Your task to perform on an android device: turn on javascript in the chrome app Image 0: 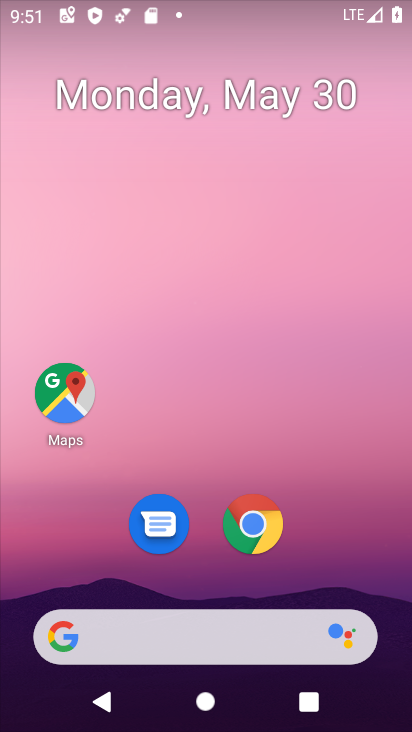
Step 0: click (246, 509)
Your task to perform on an android device: turn on javascript in the chrome app Image 1: 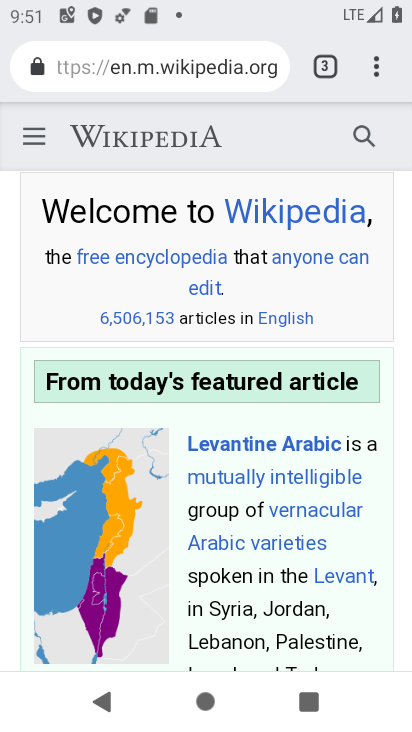
Step 1: click (369, 69)
Your task to perform on an android device: turn on javascript in the chrome app Image 2: 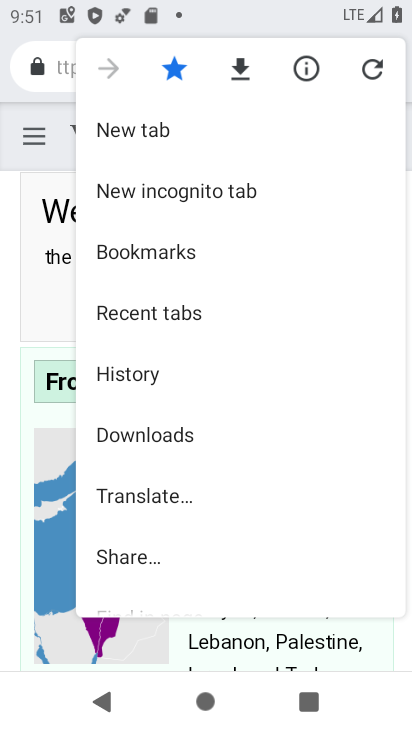
Step 2: drag from (252, 484) to (245, 161)
Your task to perform on an android device: turn on javascript in the chrome app Image 3: 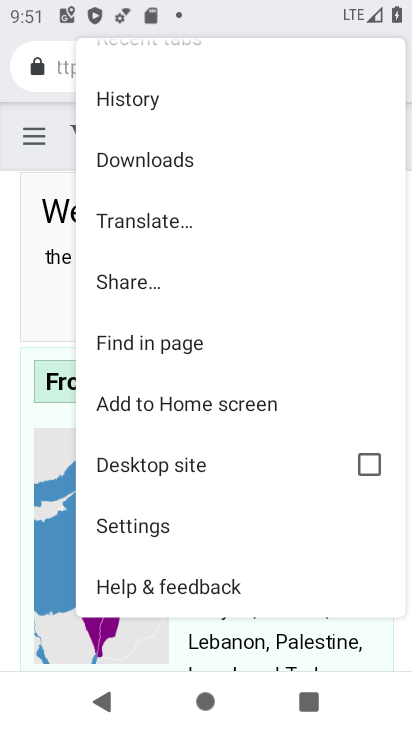
Step 3: click (183, 518)
Your task to perform on an android device: turn on javascript in the chrome app Image 4: 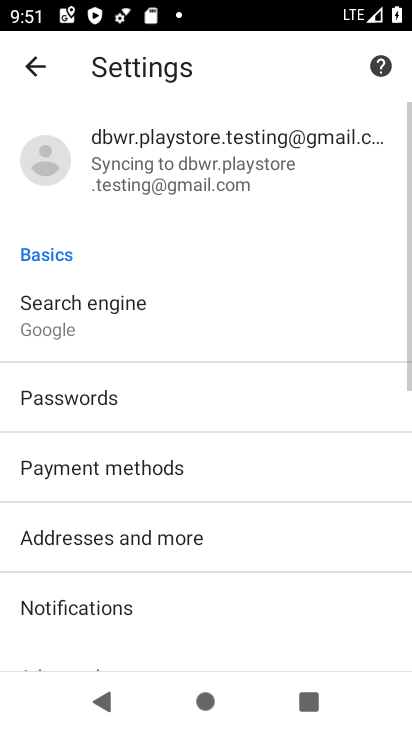
Step 4: drag from (243, 523) to (241, 104)
Your task to perform on an android device: turn on javascript in the chrome app Image 5: 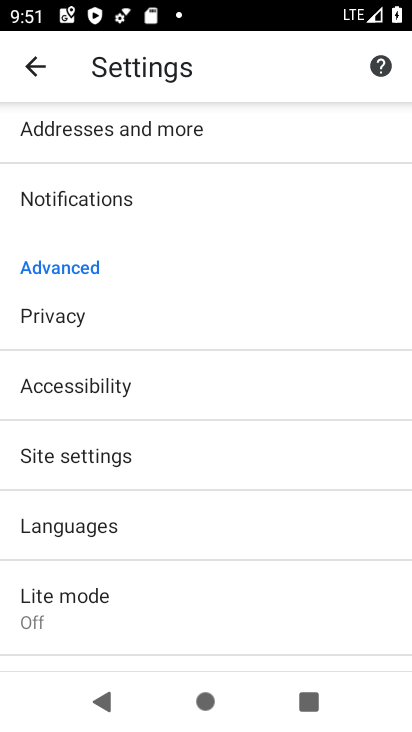
Step 5: click (183, 615)
Your task to perform on an android device: turn on javascript in the chrome app Image 6: 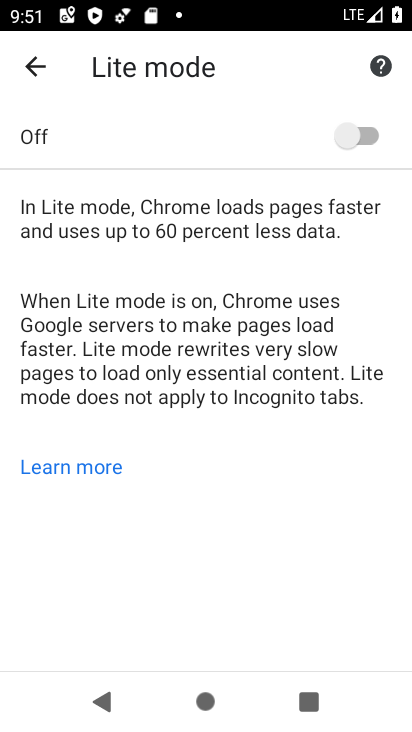
Step 6: click (39, 60)
Your task to perform on an android device: turn on javascript in the chrome app Image 7: 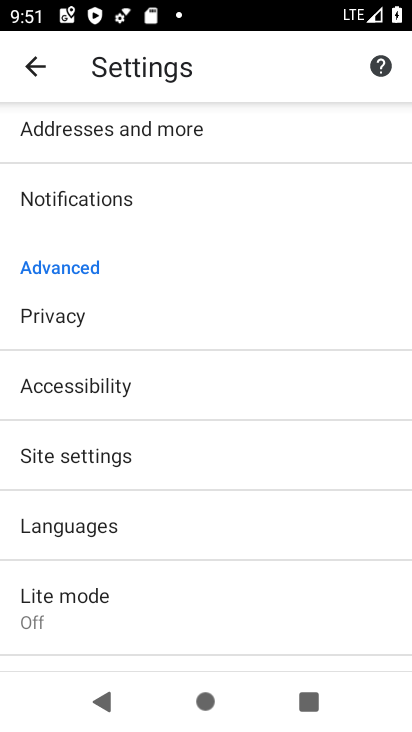
Step 7: click (178, 456)
Your task to perform on an android device: turn on javascript in the chrome app Image 8: 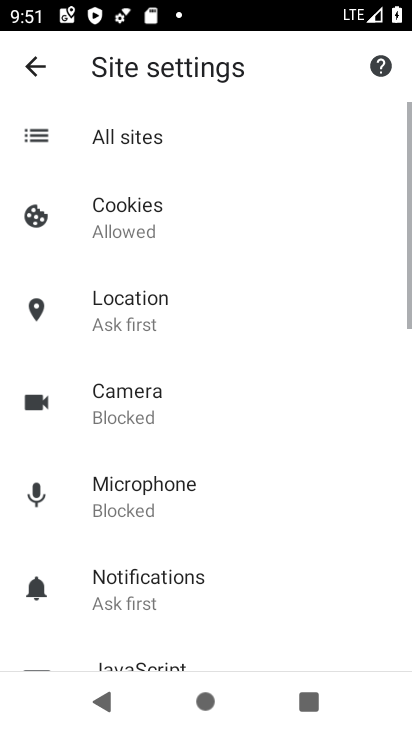
Step 8: drag from (237, 539) to (235, 226)
Your task to perform on an android device: turn on javascript in the chrome app Image 9: 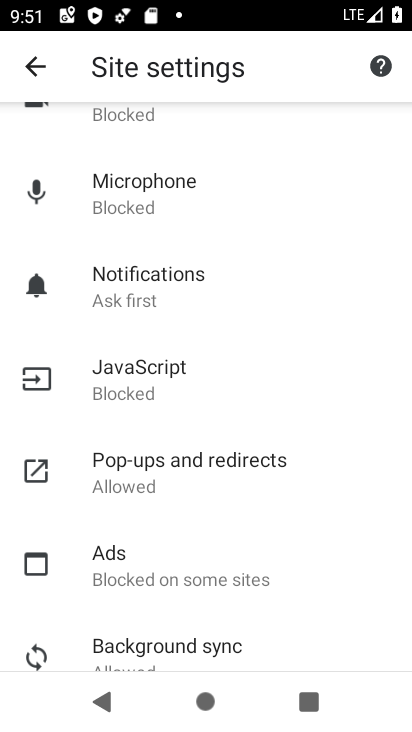
Step 9: click (187, 383)
Your task to perform on an android device: turn on javascript in the chrome app Image 10: 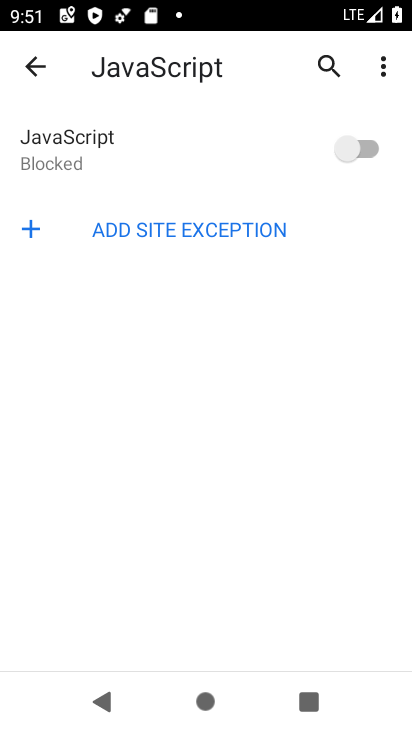
Step 10: click (360, 140)
Your task to perform on an android device: turn on javascript in the chrome app Image 11: 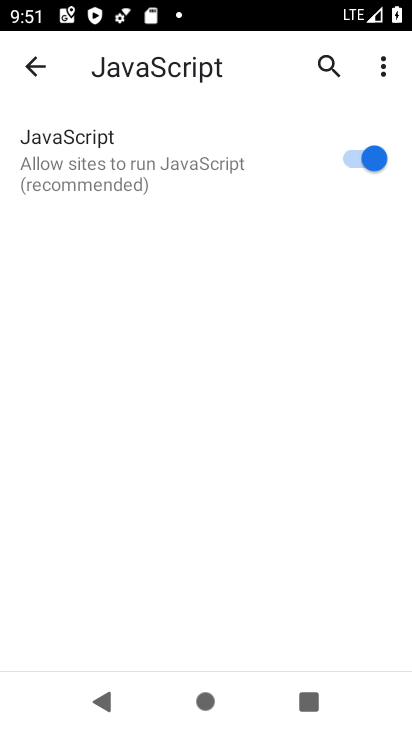
Step 11: task complete